Your task to perform on an android device: empty trash in google photos Image 0: 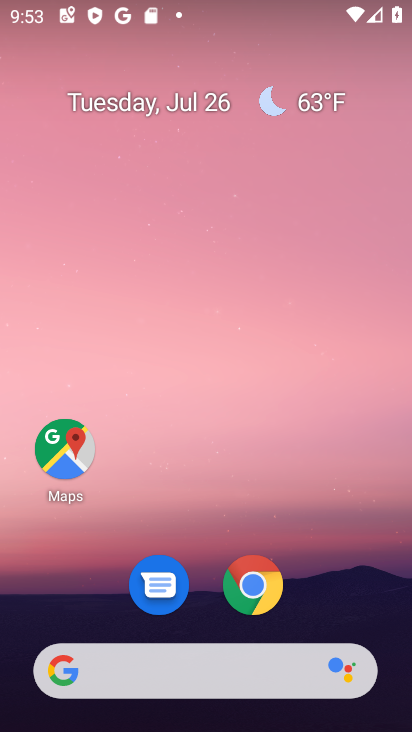
Step 0: drag from (221, 454) to (260, 50)
Your task to perform on an android device: empty trash in google photos Image 1: 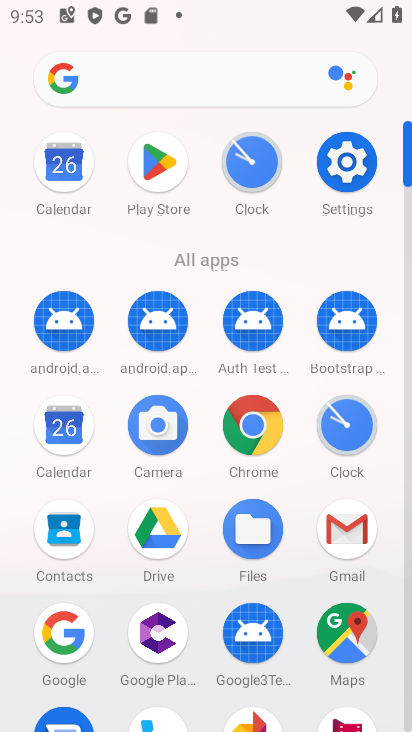
Step 1: drag from (216, 501) to (251, 249)
Your task to perform on an android device: empty trash in google photos Image 2: 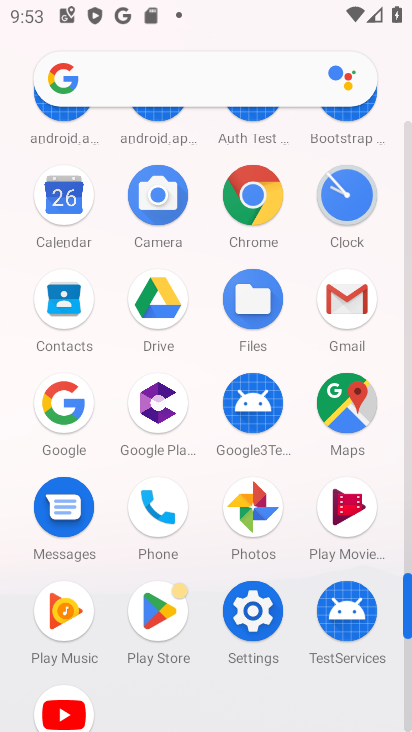
Step 2: click (248, 500)
Your task to perform on an android device: empty trash in google photos Image 3: 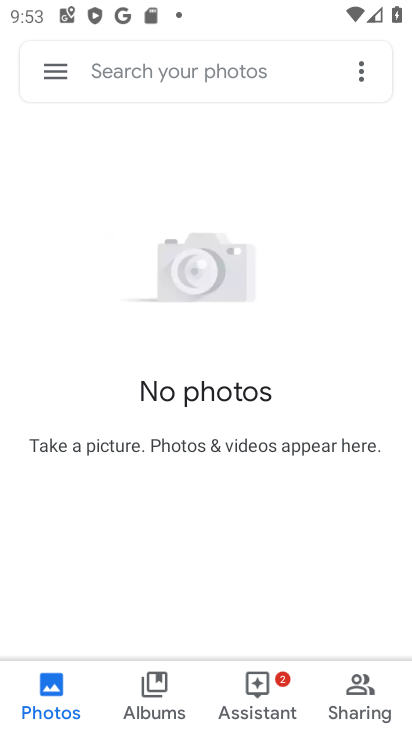
Step 3: click (59, 73)
Your task to perform on an android device: empty trash in google photos Image 4: 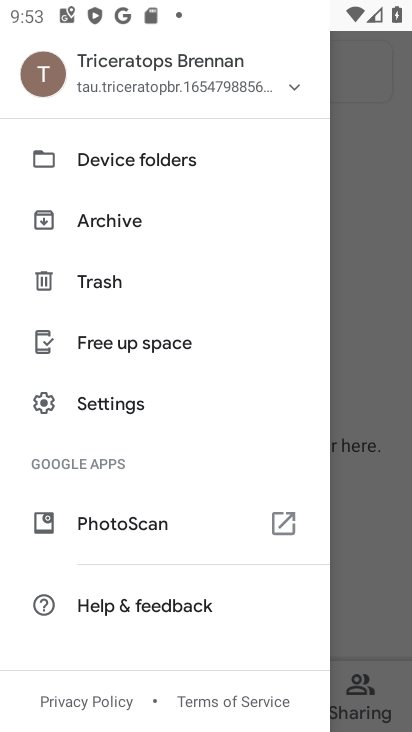
Step 4: click (95, 270)
Your task to perform on an android device: empty trash in google photos Image 5: 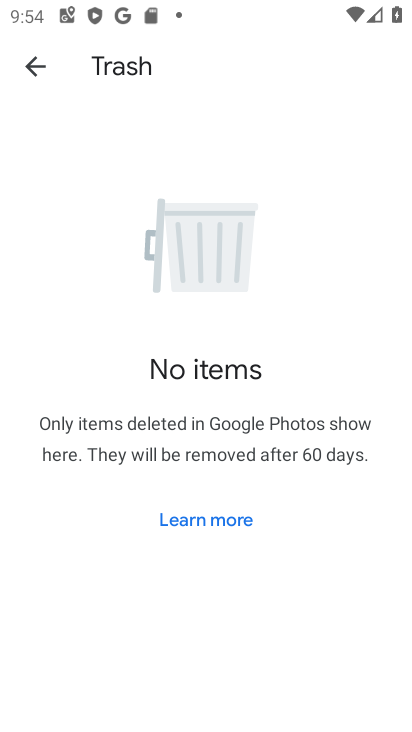
Step 5: task complete